Your task to perform on an android device: stop showing notifications on the lock screen Image 0: 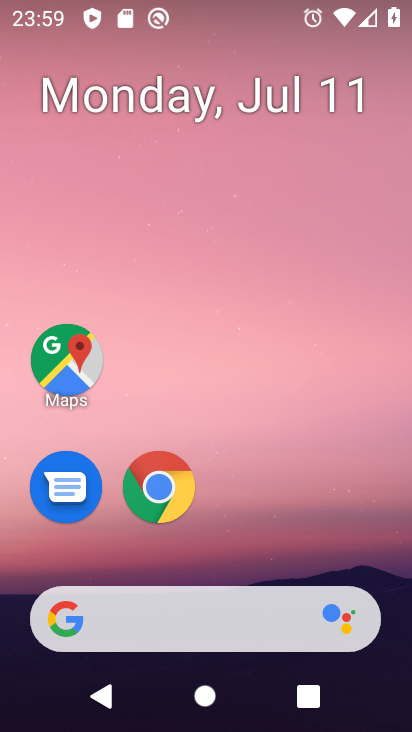
Step 0: drag from (321, 526) to (309, 106)
Your task to perform on an android device: stop showing notifications on the lock screen Image 1: 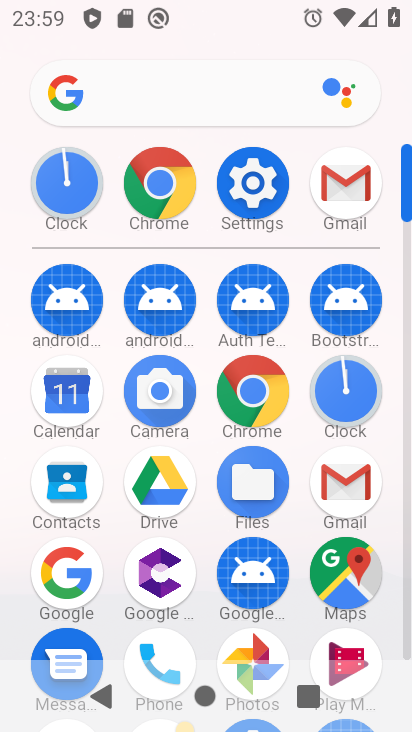
Step 1: click (262, 178)
Your task to perform on an android device: stop showing notifications on the lock screen Image 2: 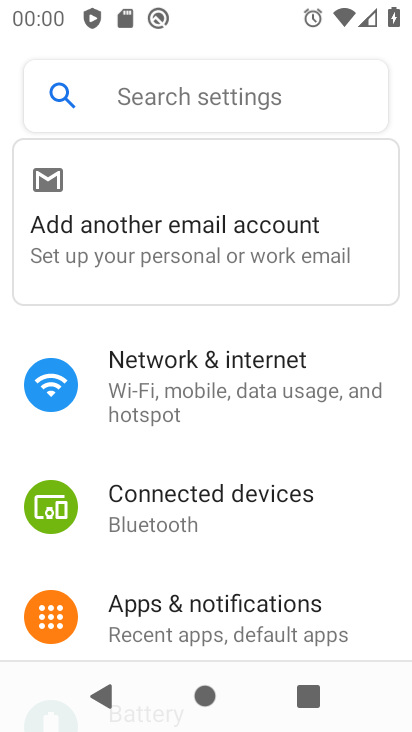
Step 2: drag from (354, 514) to (354, 419)
Your task to perform on an android device: stop showing notifications on the lock screen Image 3: 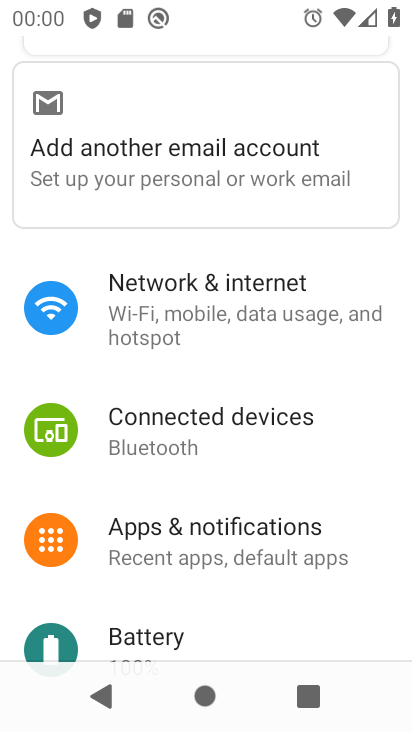
Step 3: drag from (376, 621) to (384, 418)
Your task to perform on an android device: stop showing notifications on the lock screen Image 4: 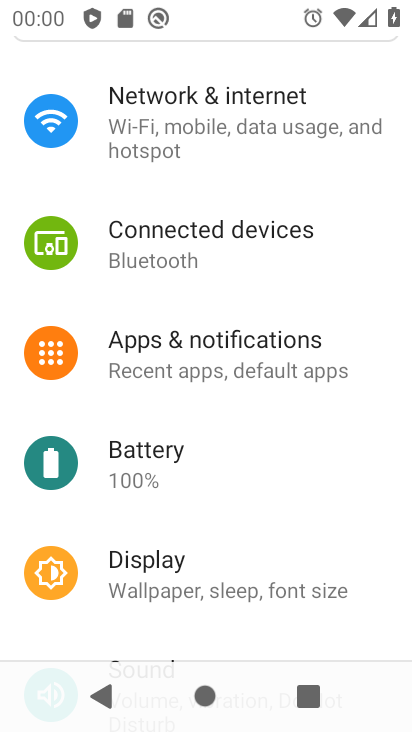
Step 4: drag from (364, 533) to (358, 405)
Your task to perform on an android device: stop showing notifications on the lock screen Image 5: 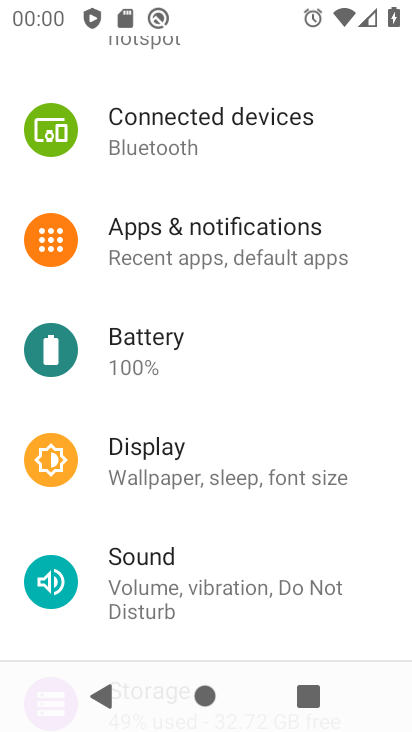
Step 5: drag from (358, 548) to (363, 414)
Your task to perform on an android device: stop showing notifications on the lock screen Image 6: 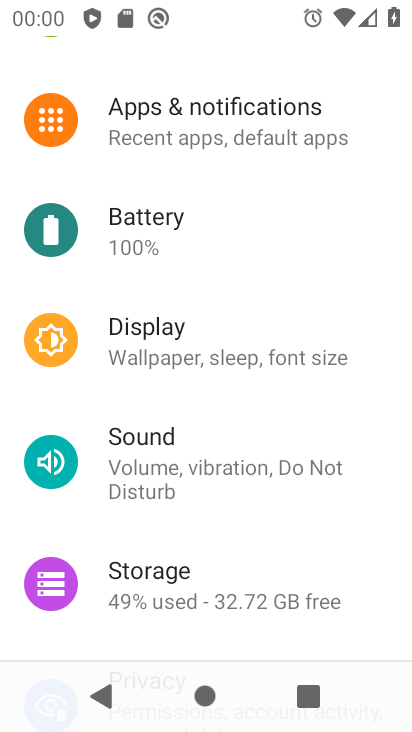
Step 6: drag from (353, 546) to (365, 401)
Your task to perform on an android device: stop showing notifications on the lock screen Image 7: 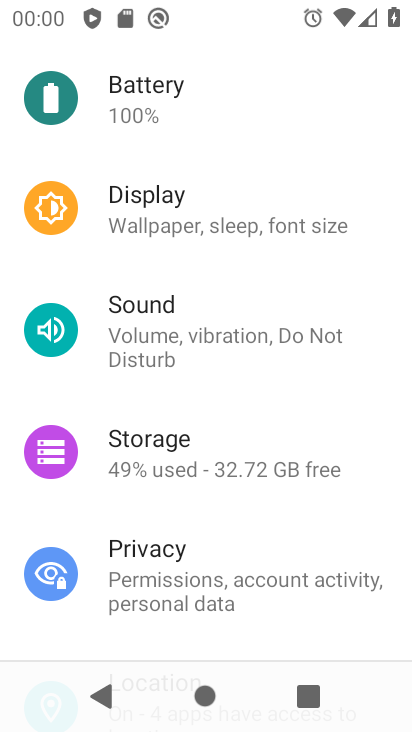
Step 7: drag from (359, 613) to (359, 395)
Your task to perform on an android device: stop showing notifications on the lock screen Image 8: 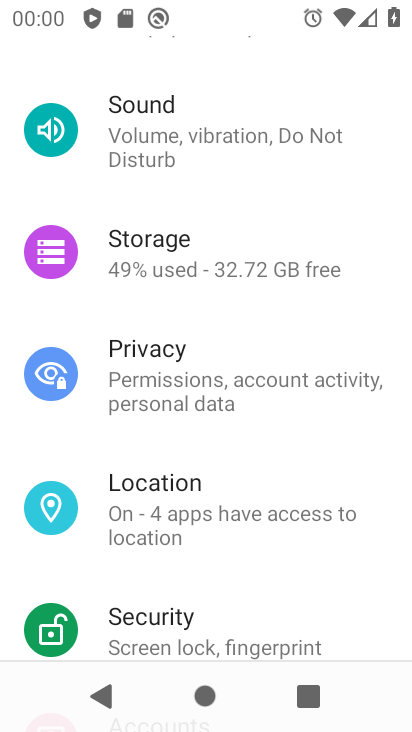
Step 8: drag from (361, 612) to (363, 403)
Your task to perform on an android device: stop showing notifications on the lock screen Image 9: 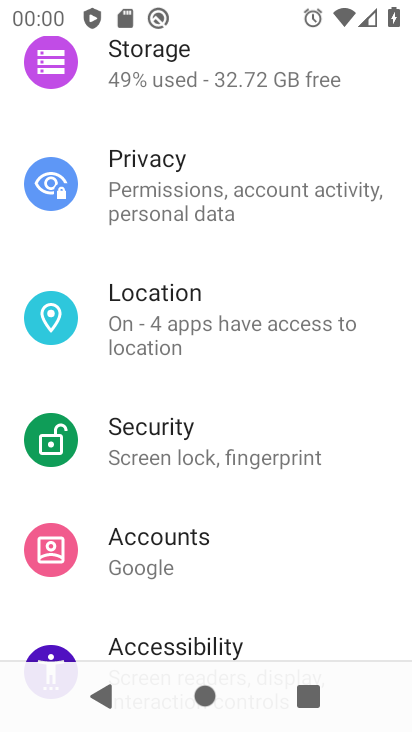
Step 9: drag from (348, 255) to (351, 388)
Your task to perform on an android device: stop showing notifications on the lock screen Image 10: 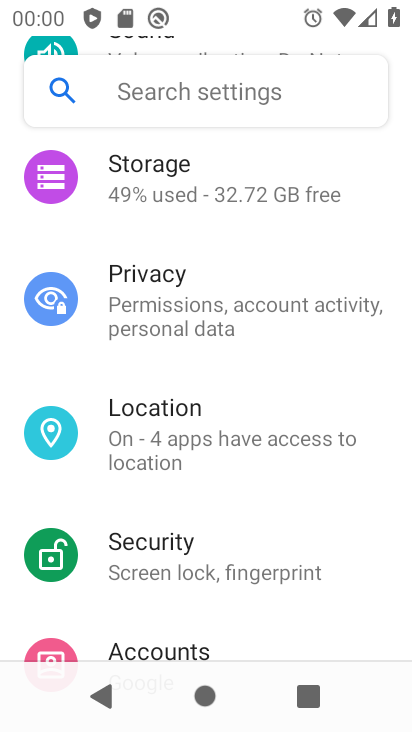
Step 10: drag from (352, 255) to (354, 359)
Your task to perform on an android device: stop showing notifications on the lock screen Image 11: 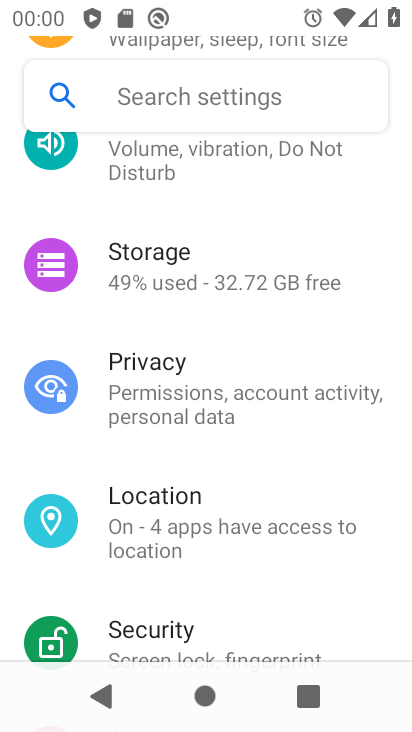
Step 11: drag from (357, 260) to (362, 388)
Your task to perform on an android device: stop showing notifications on the lock screen Image 12: 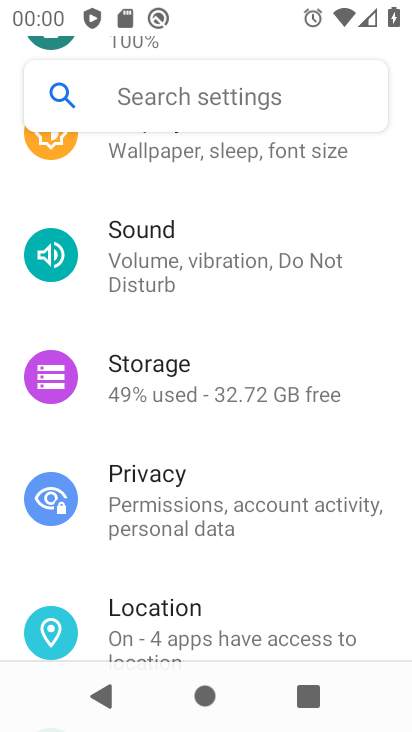
Step 12: drag from (361, 274) to (361, 369)
Your task to perform on an android device: stop showing notifications on the lock screen Image 13: 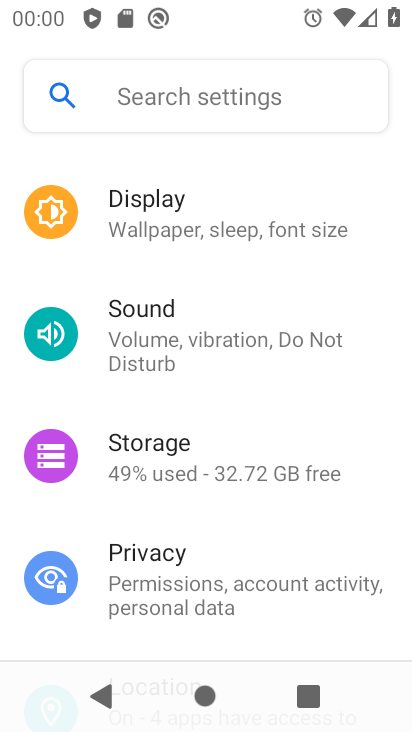
Step 13: drag from (358, 296) to (361, 422)
Your task to perform on an android device: stop showing notifications on the lock screen Image 14: 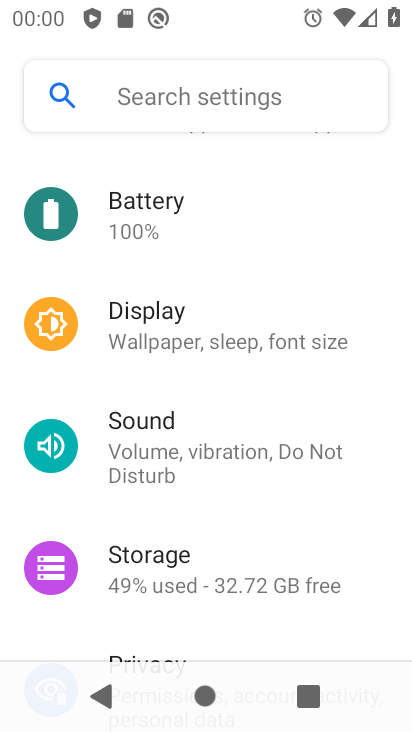
Step 14: drag from (353, 281) to (356, 423)
Your task to perform on an android device: stop showing notifications on the lock screen Image 15: 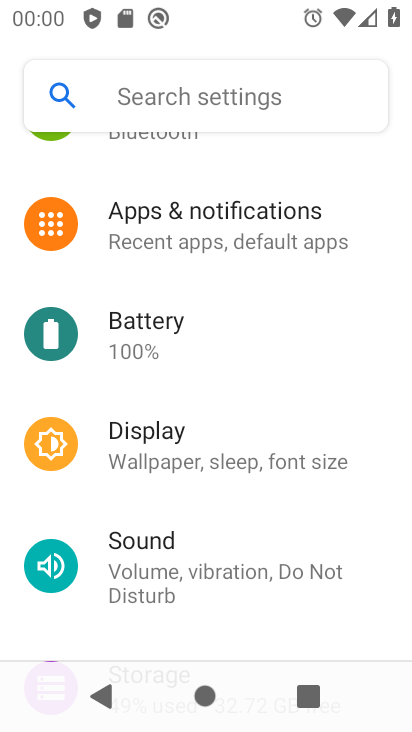
Step 15: click (271, 243)
Your task to perform on an android device: stop showing notifications on the lock screen Image 16: 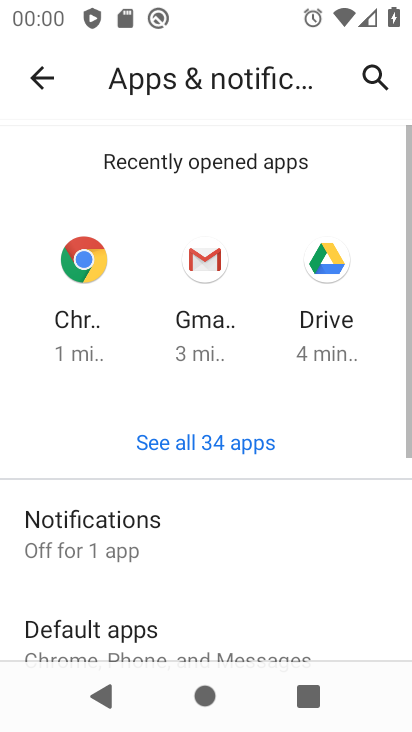
Step 16: drag from (276, 541) to (276, 377)
Your task to perform on an android device: stop showing notifications on the lock screen Image 17: 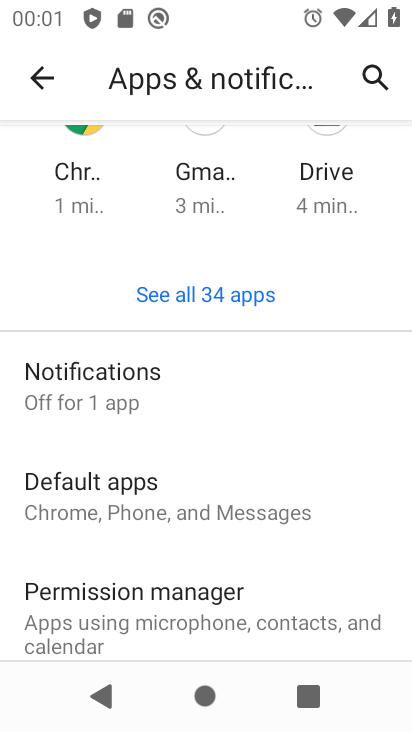
Step 17: click (158, 406)
Your task to perform on an android device: stop showing notifications on the lock screen Image 18: 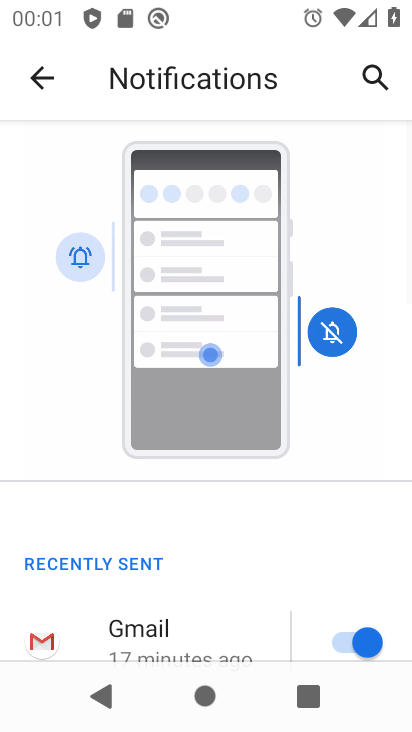
Step 18: drag from (274, 537) to (267, 403)
Your task to perform on an android device: stop showing notifications on the lock screen Image 19: 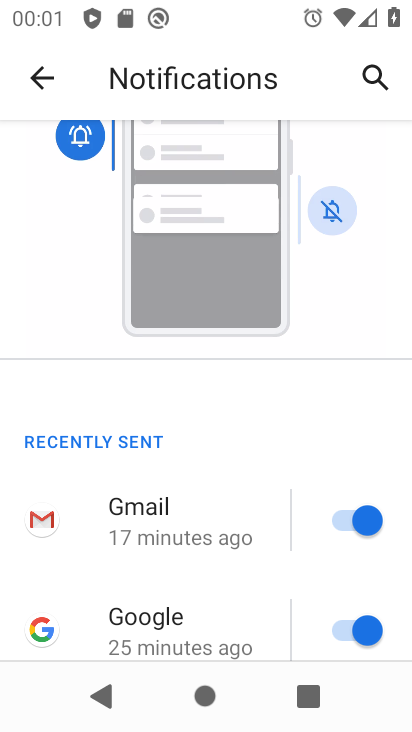
Step 19: drag from (254, 582) to (253, 441)
Your task to perform on an android device: stop showing notifications on the lock screen Image 20: 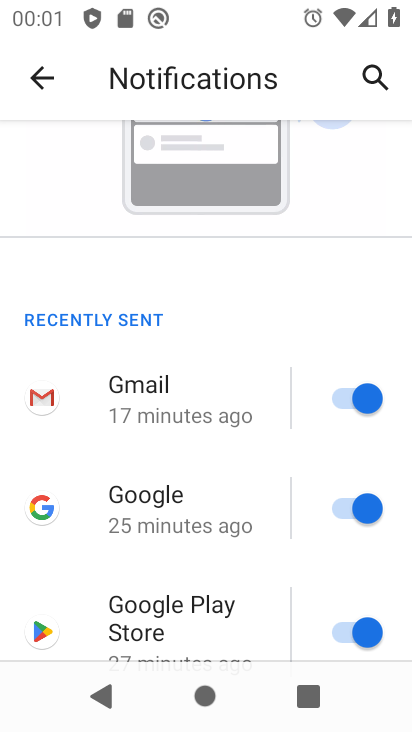
Step 20: drag from (266, 606) to (265, 469)
Your task to perform on an android device: stop showing notifications on the lock screen Image 21: 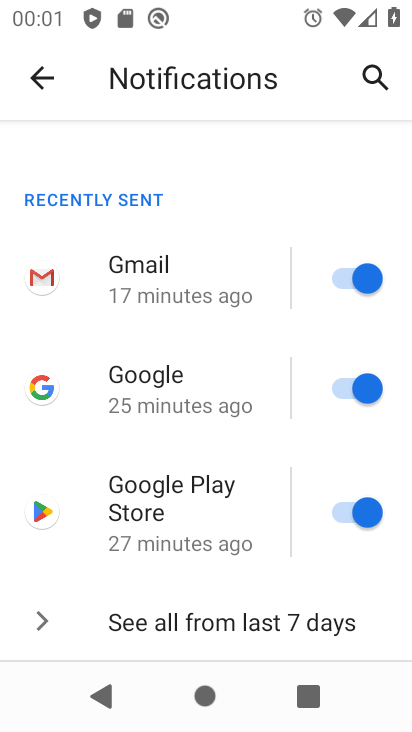
Step 21: drag from (272, 575) to (272, 467)
Your task to perform on an android device: stop showing notifications on the lock screen Image 22: 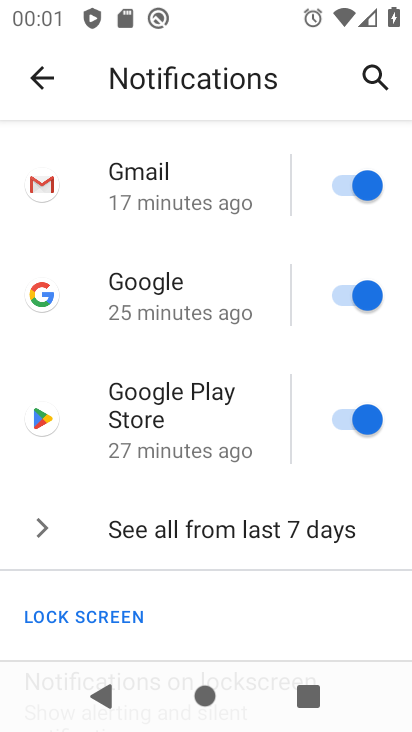
Step 22: drag from (270, 574) to (262, 426)
Your task to perform on an android device: stop showing notifications on the lock screen Image 23: 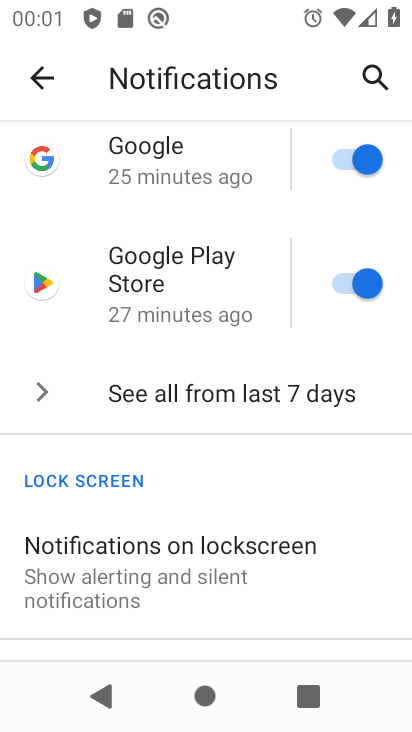
Step 23: click (252, 560)
Your task to perform on an android device: stop showing notifications on the lock screen Image 24: 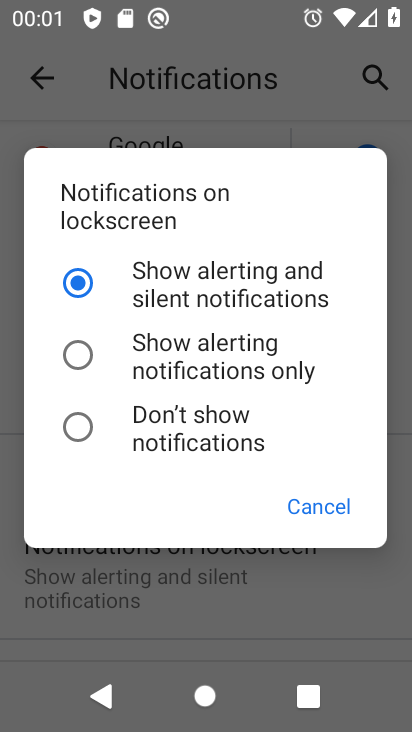
Step 24: click (118, 436)
Your task to perform on an android device: stop showing notifications on the lock screen Image 25: 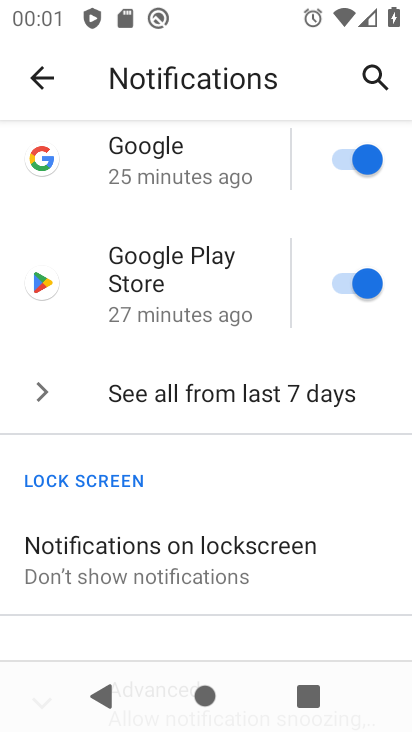
Step 25: task complete